Your task to perform on an android device: Open settings Image 0: 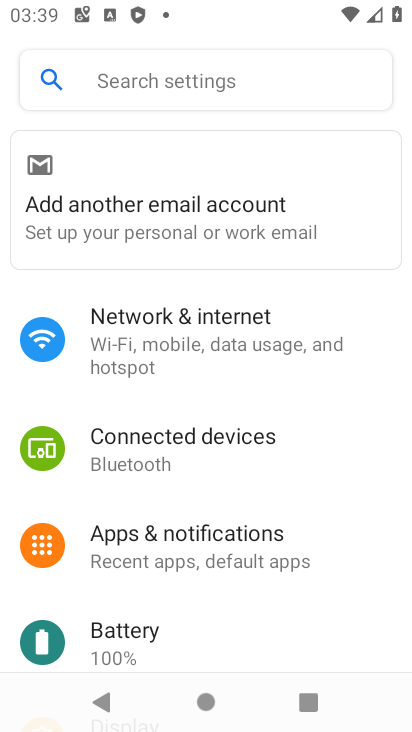
Step 0: drag from (301, 571) to (307, 168)
Your task to perform on an android device: Open settings Image 1: 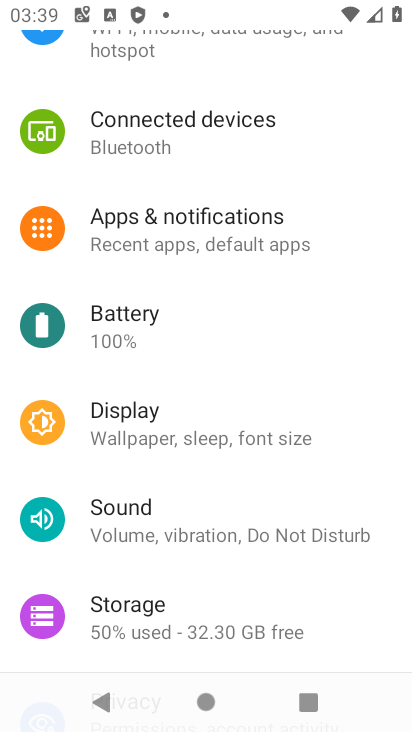
Step 1: task complete